Your task to perform on an android device: Toggle the flashlight Image 0: 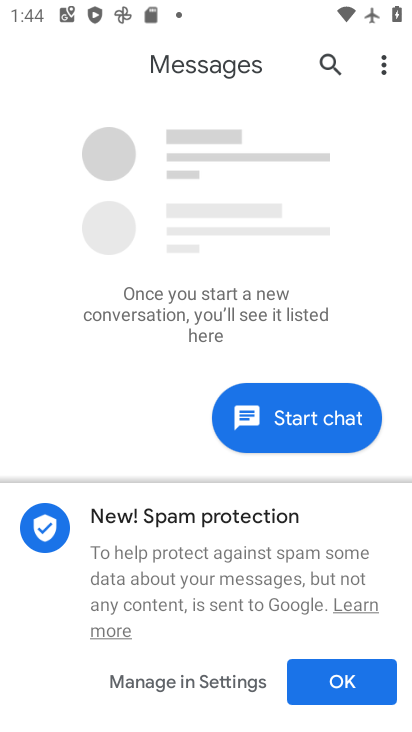
Step 0: press home button
Your task to perform on an android device: Toggle the flashlight Image 1: 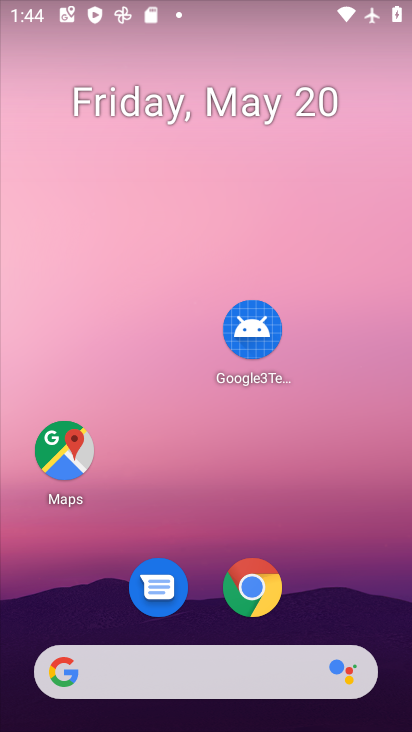
Step 1: drag from (286, 508) to (277, 89)
Your task to perform on an android device: Toggle the flashlight Image 2: 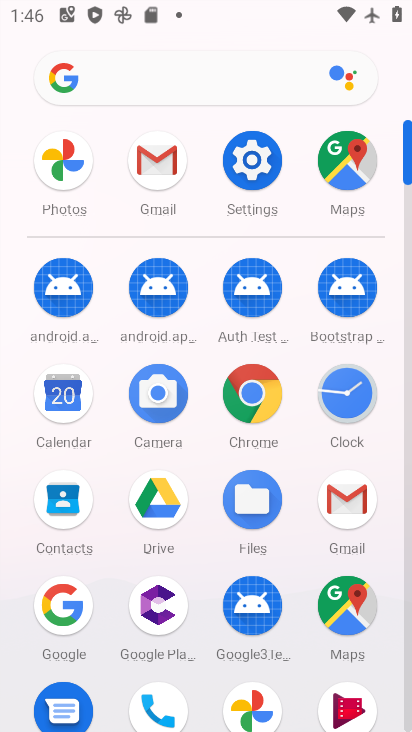
Step 2: click (249, 151)
Your task to perform on an android device: Toggle the flashlight Image 3: 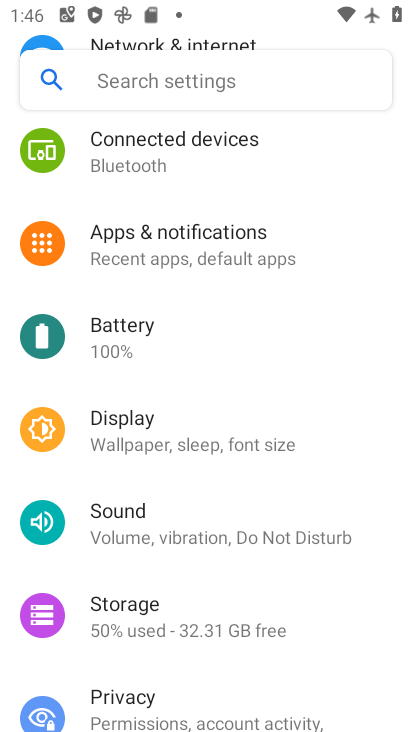
Step 3: click (254, 165)
Your task to perform on an android device: Toggle the flashlight Image 4: 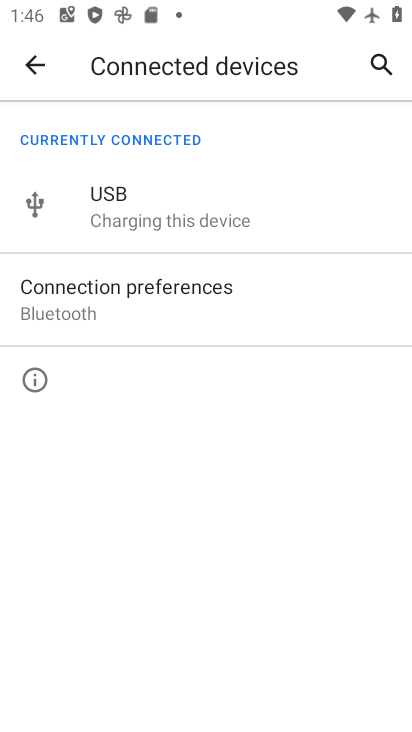
Step 4: click (45, 65)
Your task to perform on an android device: Toggle the flashlight Image 5: 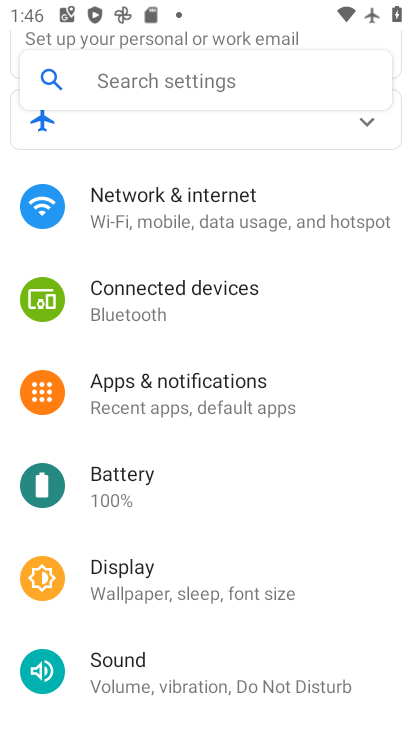
Step 5: click (194, 206)
Your task to perform on an android device: Toggle the flashlight Image 6: 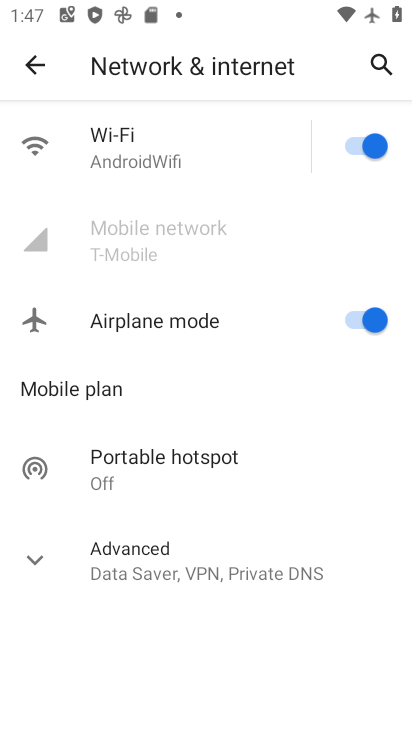
Step 6: task complete